Your task to perform on an android device: Clear all items from cart on amazon.com. Search for logitech g502 on amazon.com, select the first entry, add it to the cart, then select checkout. Image 0: 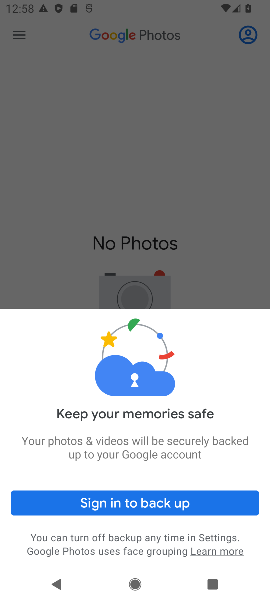
Step 0: press home button
Your task to perform on an android device: Clear all items from cart on amazon.com. Search for logitech g502 on amazon.com, select the first entry, add it to the cart, then select checkout. Image 1: 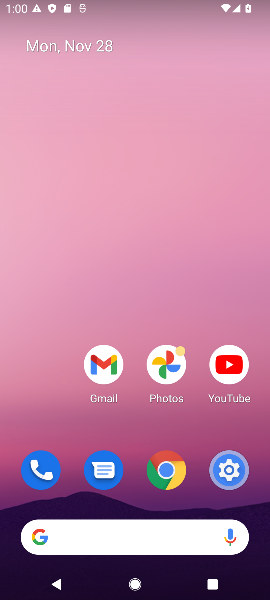
Step 1: click (127, 548)
Your task to perform on an android device: Clear all items from cart on amazon.com. Search for logitech g502 on amazon.com, select the first entry, add it to the cart, then select checkout. Image 2: 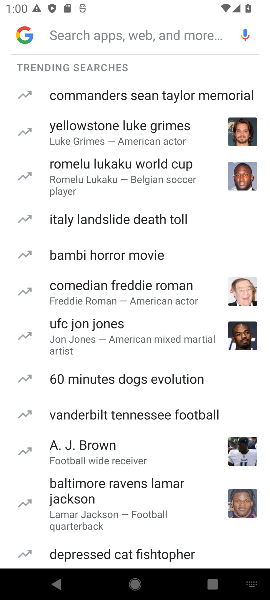
Step 2: type "amazon"
Your task to perform on an android device: Clear all items from cart on amazon.com. Search for logitech g502 on amazon.com, select the first entry, add it to the cart, then select checkout. Image 3: 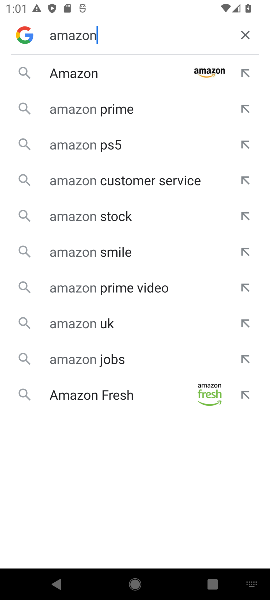
Step 3: click (164, 72)
Your task to perform on an android device: Clear all items from cart on amazon.com. Search for logitech g502 on amazon.com, select the first entry, add it to the cart, then select checkout. Image 4: 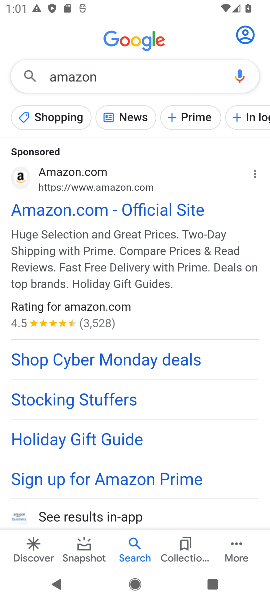
Step 4: click (36, 225)
Your task to perform on an android device: Clear all items from cart on amazon.com. Search for logitech g502 on amazon.com, select the first entry, add it to the cart, then select checkout. Image 5: 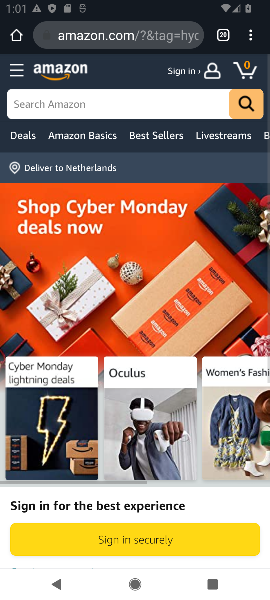
Step 5: task complete